Your task to perform on an android device: Search for seafood restaurants on Google Maps Image 0: 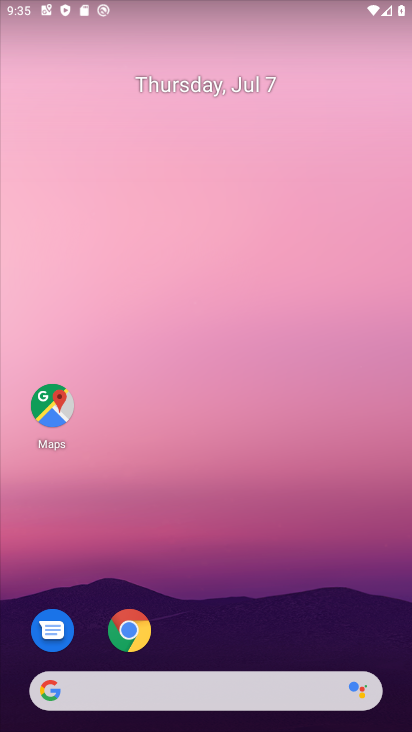
Step 0: click (53, 405)
Your task to perform on an android device: Search for seafood restaurants on Google Maps Image 1: 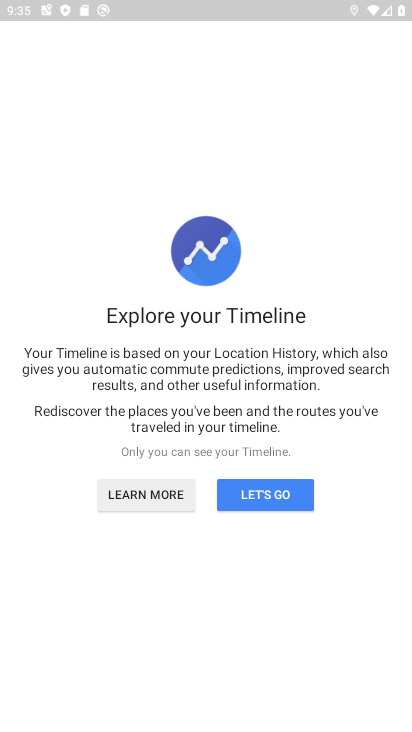
Step 1: click (241, 486)
Your task to perform on an android device: Search for seafood restaurants on Google Maps Image 2: 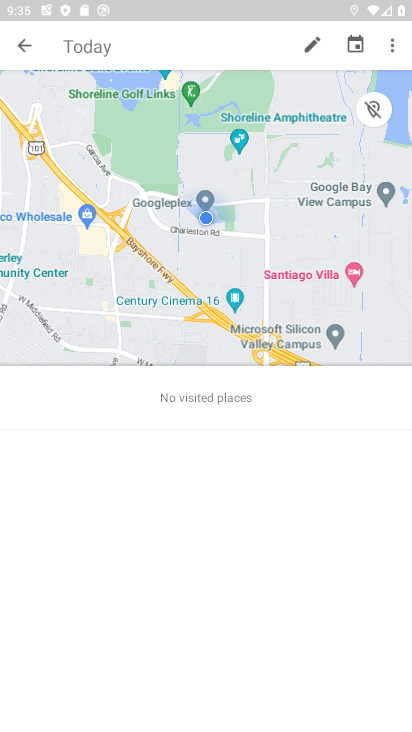
Step 2: click (228, 45)
Your task to perform on an android device: Search for seafood restaurants on Google Maps Image 3: 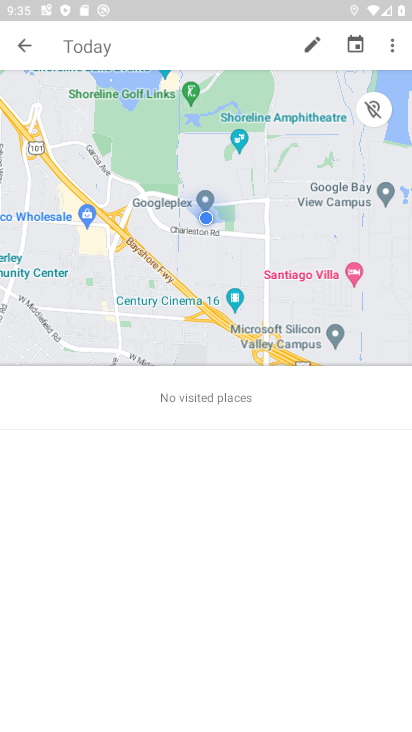
Step 3: click (22, 37)
Your task to perform on an android device: Search for seafood restaurants on Google Maps Image 4: 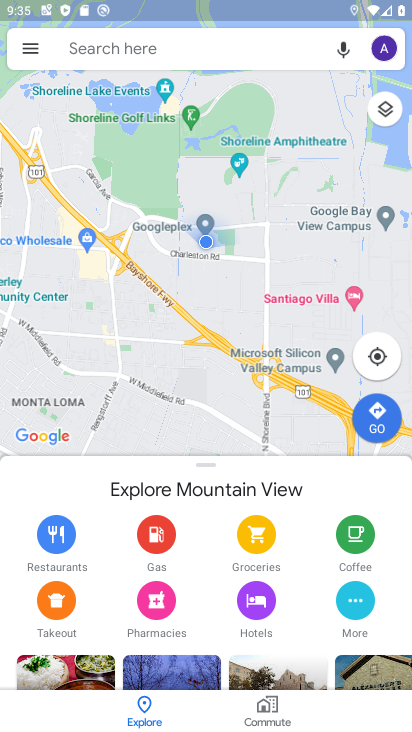
Step 4: click (179, 51)
Your task to perform on an android device: Search for seafood restaurants on Google Maps Image 5: 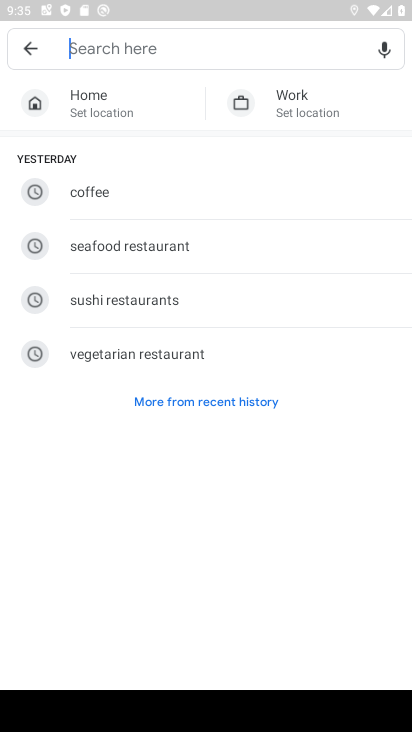
Step 5: click (191, 247)
Your task to perform on an android device: Search for seafood restaurants on Google Maps Image 6: 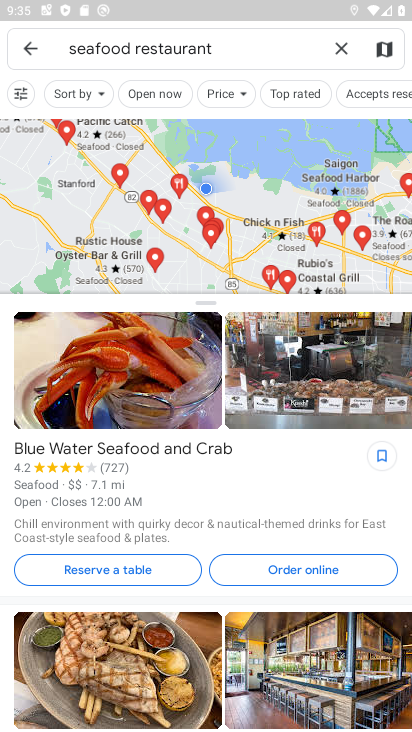
Step 6: task complete